Your task to perform on an android device: turn on priority inbox in the gmail app Image 0: 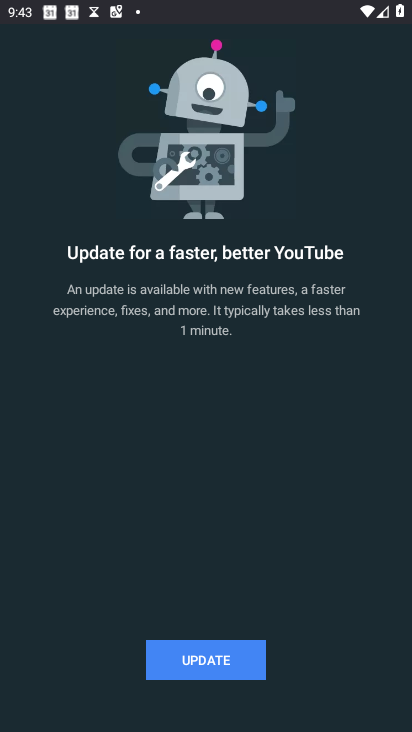
Step 0: press home button
Your task to perform on an android device: turn on priority inbox in the gmail app Image 1: 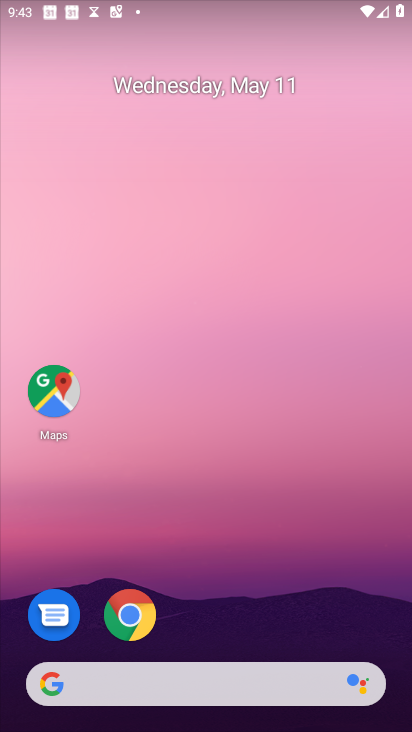
Step 1: drag from (19, 579) to (278, 116)
Your task to perform on an android device: turn on priority inbox in the gmail app Image 2: 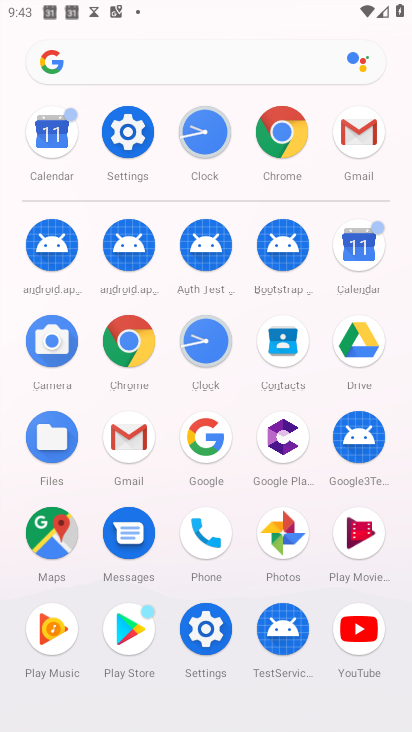
Step 2: click (128, 438)
Your task to perform on an android device: turn on priority inbox in the gmail app Image 3: 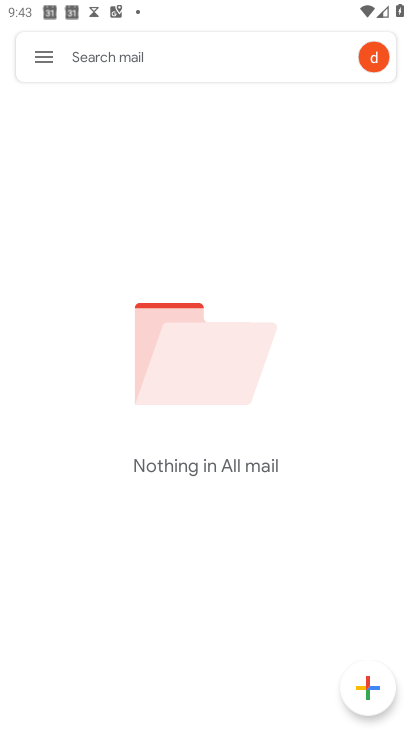
Step 3: click (49, 55)
Your task to perform on an android device: turn on priority inbox in the gmail app Image 4: 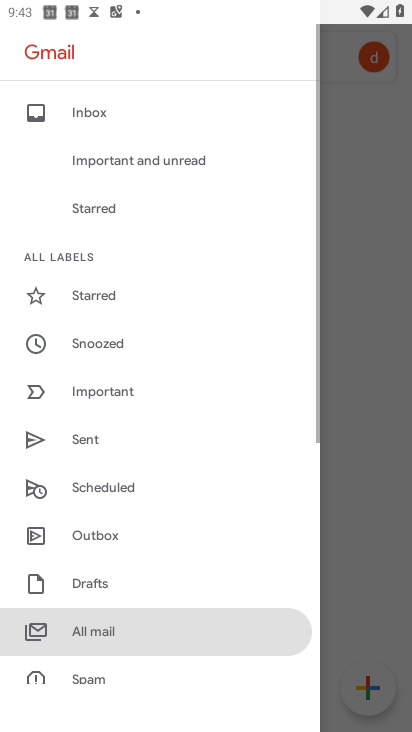
Step 4: drag from (159, 657) to (210, 207)
Your task to perform on an android device: turn on priority inbox in the gmail app Image 5: 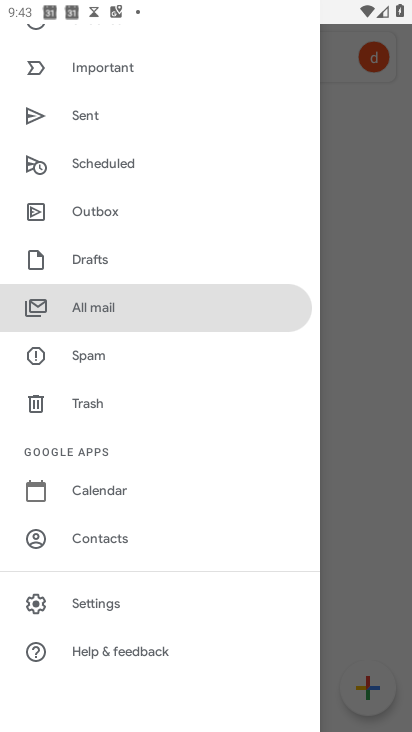
Step 5: click (113, 591)
Your task to perform on an android device: turn on priority inbox in the gmail app Image 6: 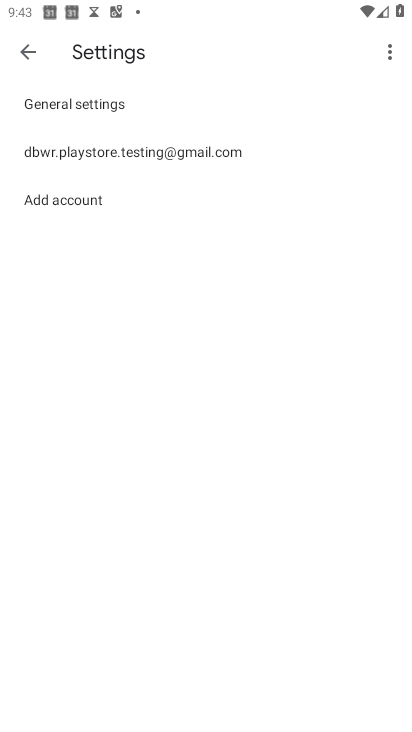
Step 6: click (84, 143)
Your task to perform on an android device: turn on priority inbox in the gmail app Image 7: 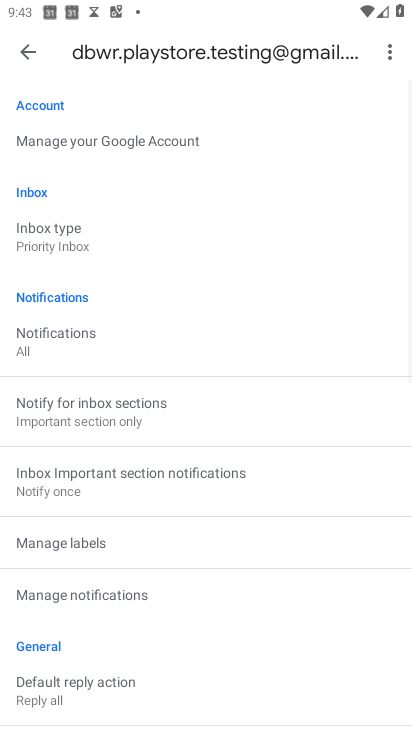
Step 7: click (97, 236)
Your task to perform on an android device: turn on priority inbox in the gmail app Image 8: 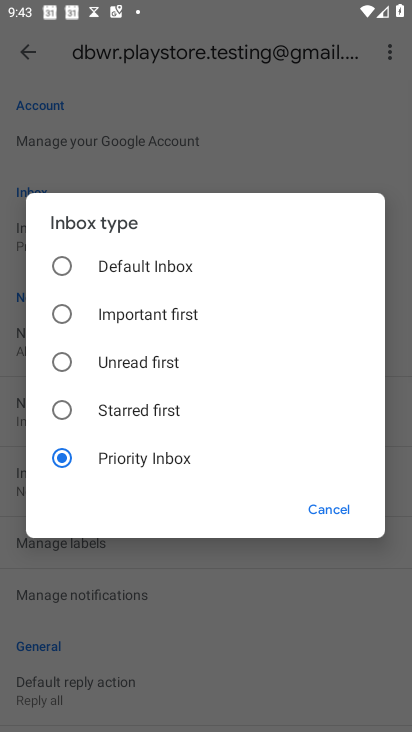
Step 8: click (99, 468)
Your task to perform on an android device: turn on priority inbox in the gmail app Image 9: 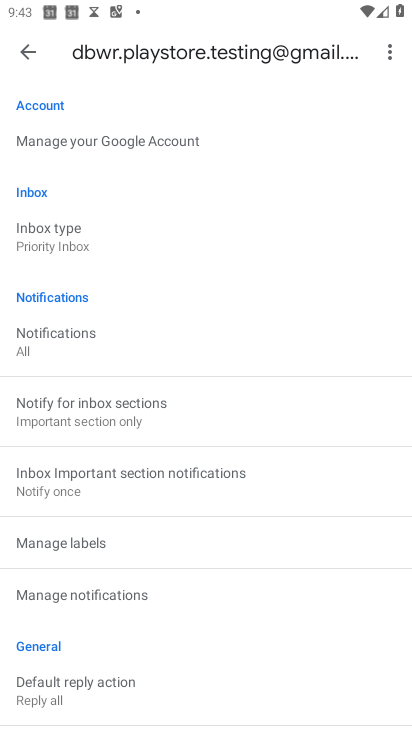
Step 9: task complete